Your task to perform on an android device: read, delete, or share a saved page in the chrome app Image 0: 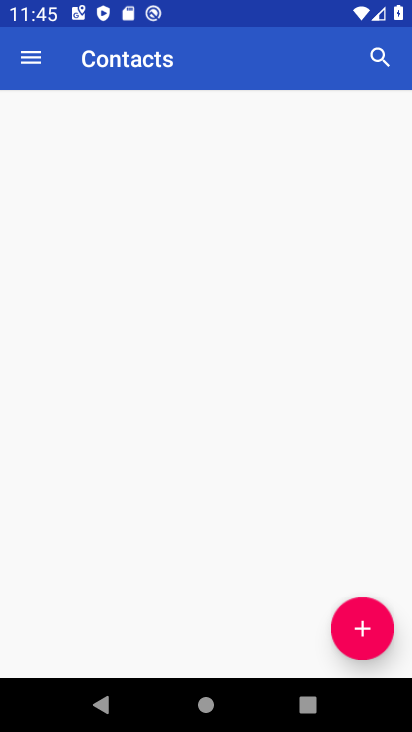
Step 0: press home button
Your task to perform on an android device: read, delete, or share a saved page in the chrome app Image 1: 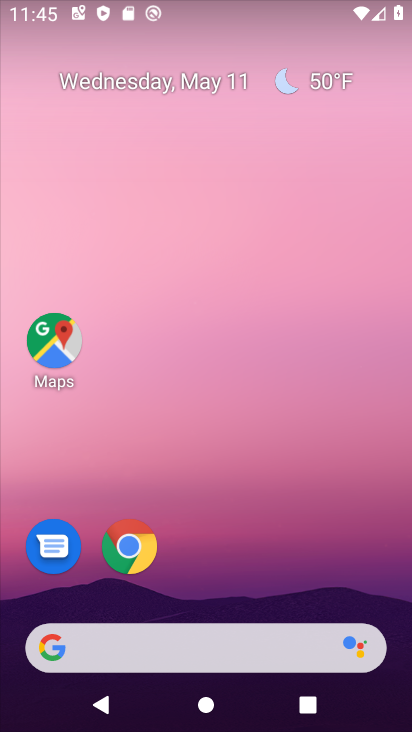
Step 1: click (126, 553)
Your task to perform on an android device: read, delete, or share a saved page in the chrome app Image 2: 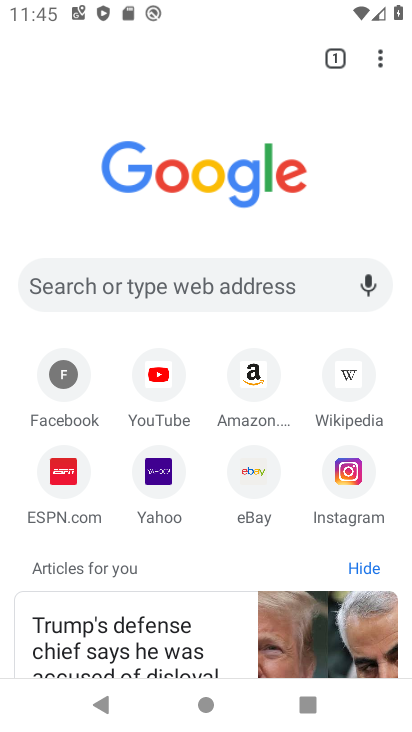
Step 2: click (379, 63)
Your task to perform on an android device: read, delete, or share a saved page in the chrome app Image 3: 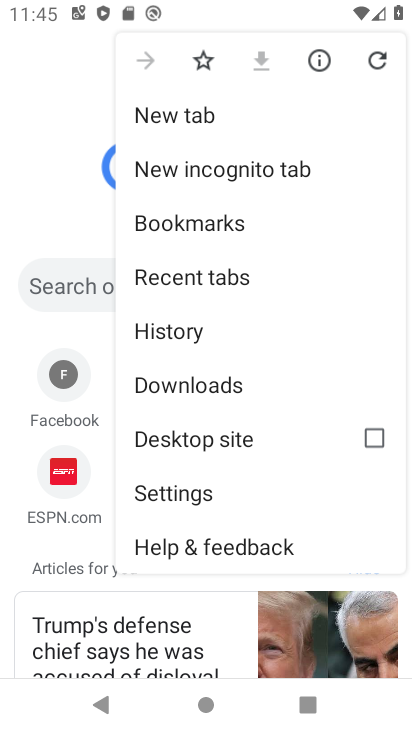
Step 3: click (184, 379)
Your task to perform on an android device: read, delete, or share a saved page in the chrome app Image 4: 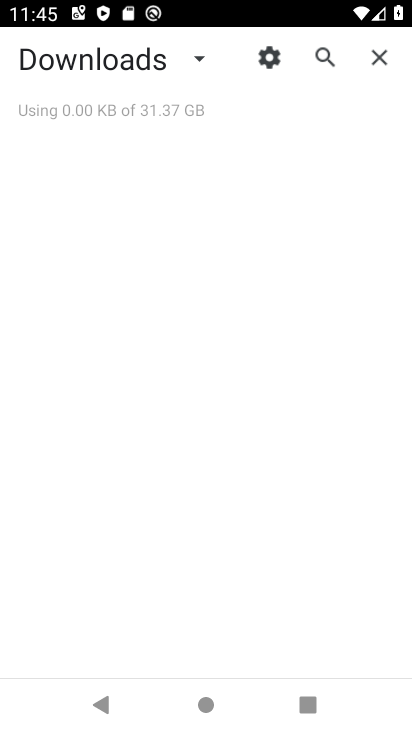
Step 4: click (164, 62)
Your task to perform on an android device: read, delete, or share a saved page in the chrome app Image 5: 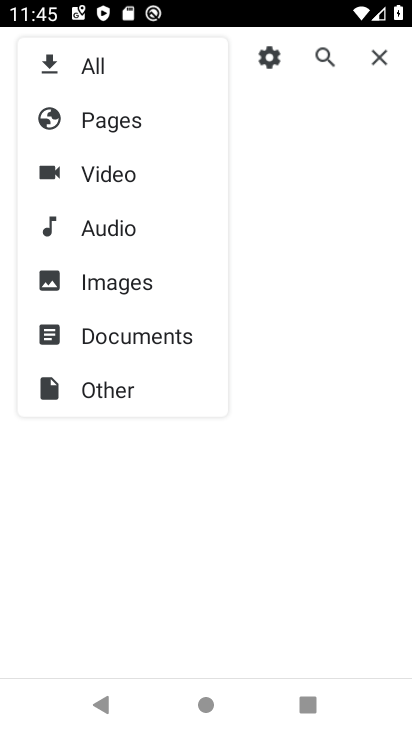
Step 5: click (126, 125)
Your task to perform on an android device: read, delete, or share a saved page in the chrome app Image 6: 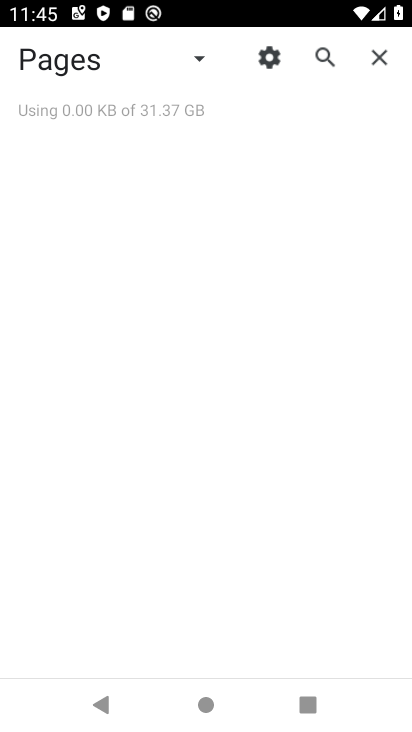
Step 6: task complete